Your task to perform on an android device: turn off airplane mode Image 0: 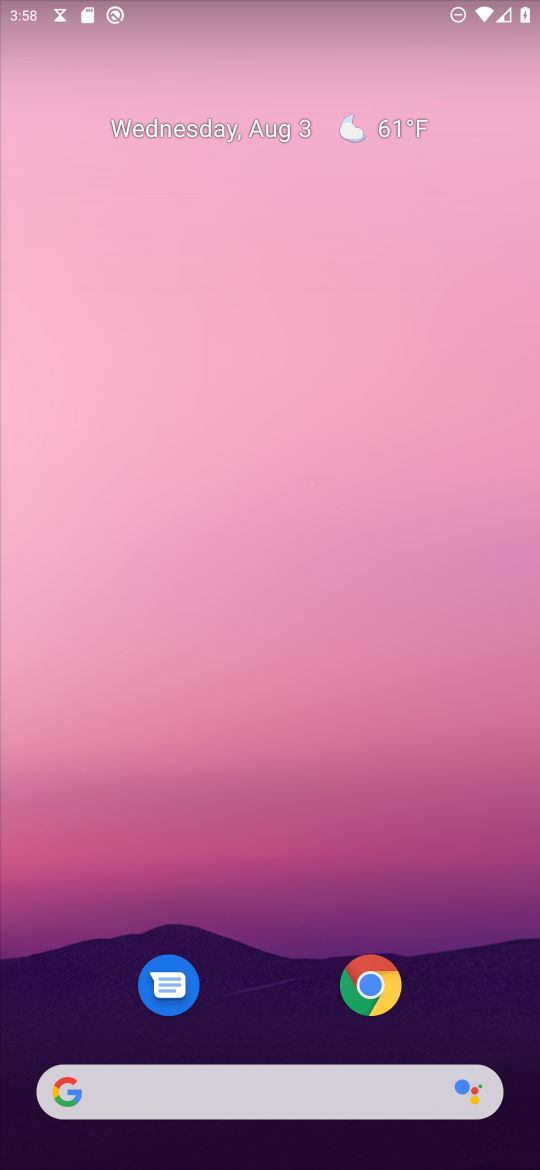
Step 0: drag from (277, 992) to (161, 31)
Your task to perform on an android device: turn off airplane mode Image 1: 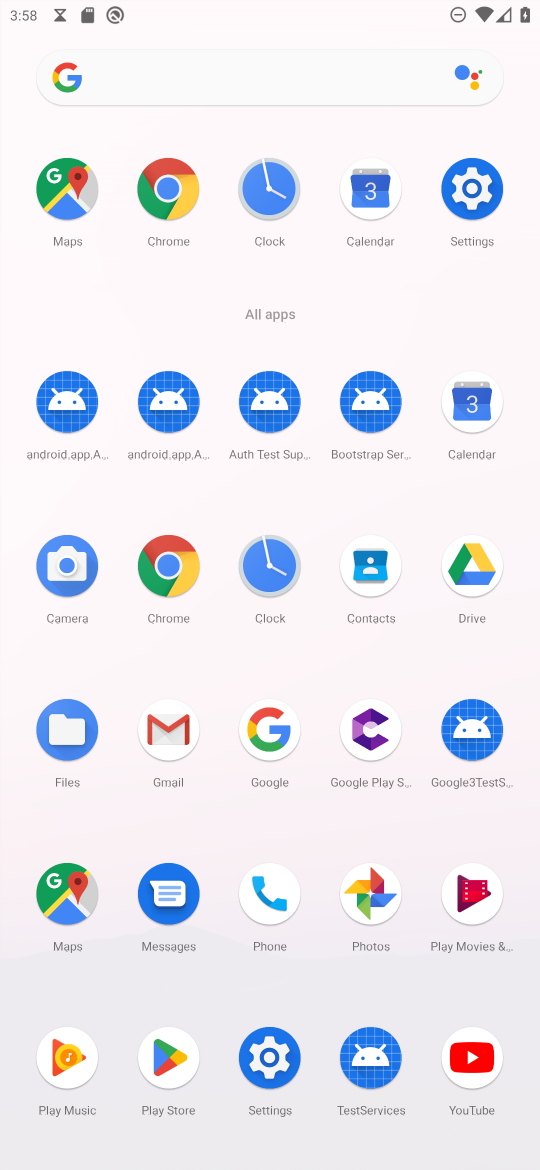
Step 1: click (481, 182)
Your task to perform on an android device: turn off airplane mode Image 2: 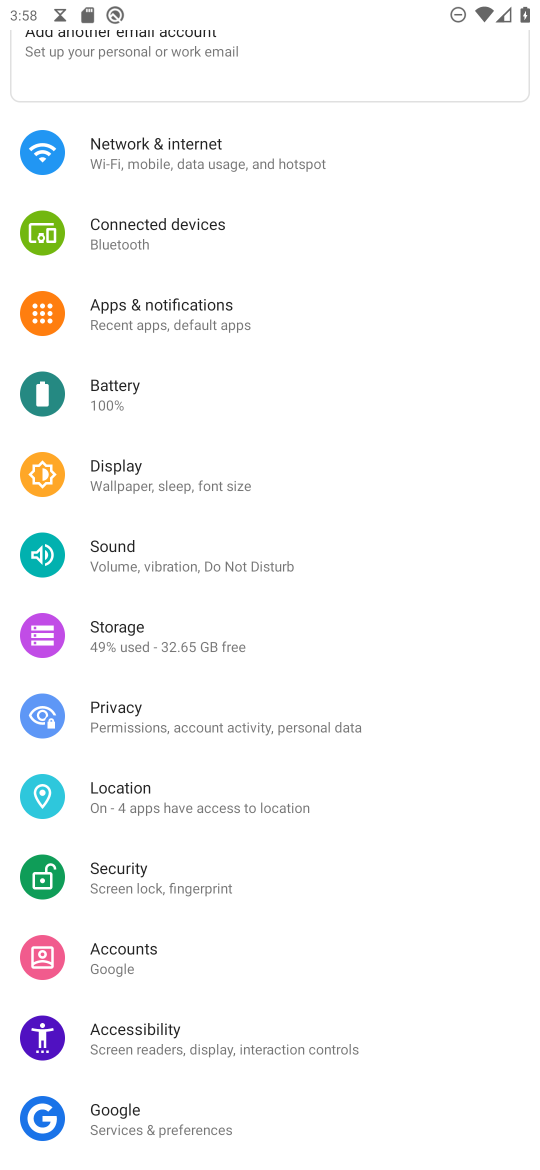
Step 2: click (118, 151)
Your task to perform on an android device: turn off airplane mode Image 3: 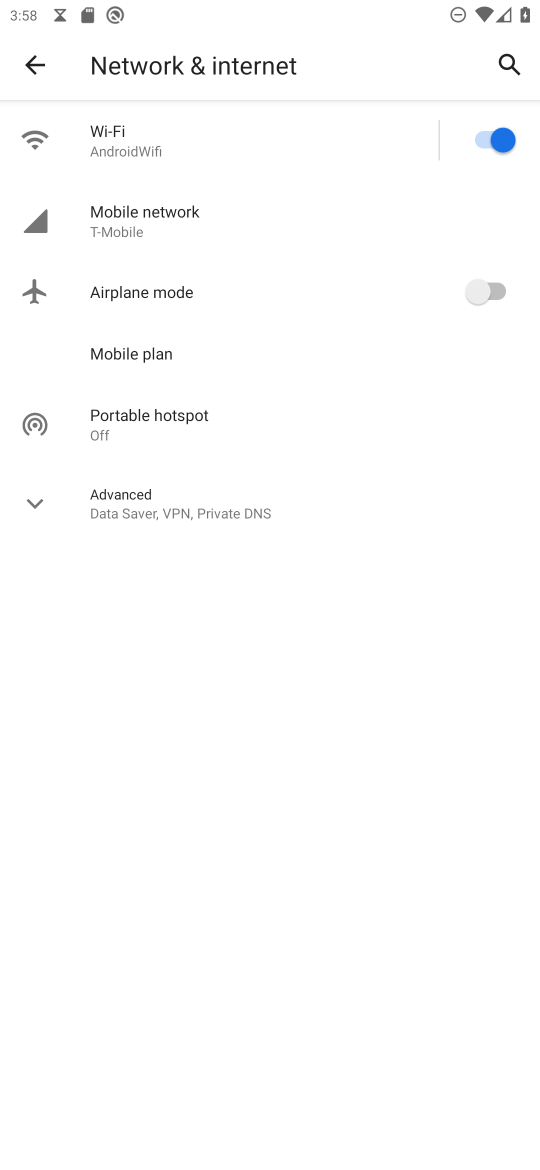
Step 3: task complete